Your task to perform on an android device: toggle airplane mode Image 0: 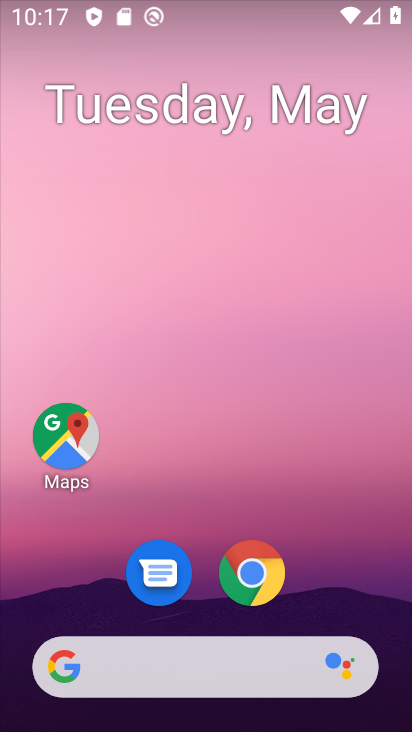
Step 0: drag from (245, 5) to (253, 396)
Your task to perform on an android device: toggle airplane mode Image 1: 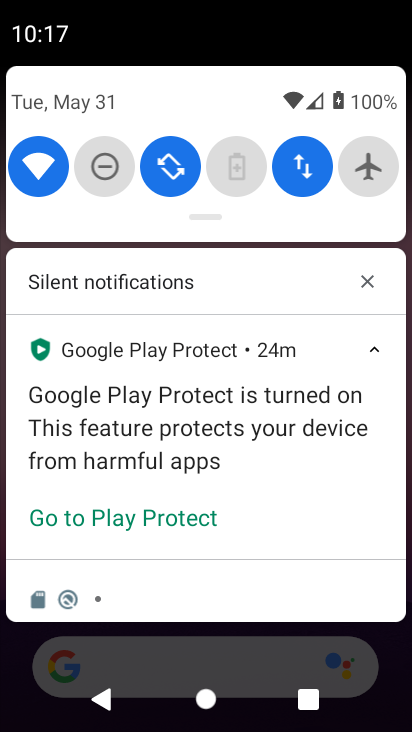
Step 1: click (365, 163)
Your task to perform on an android device: toggle airplane mode Image 2: 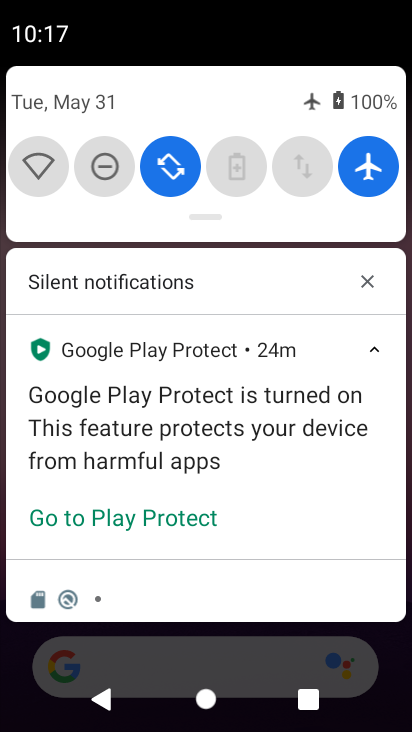
Step 2: task complete